Your task to perform on an android device: change the clock style Image 0: 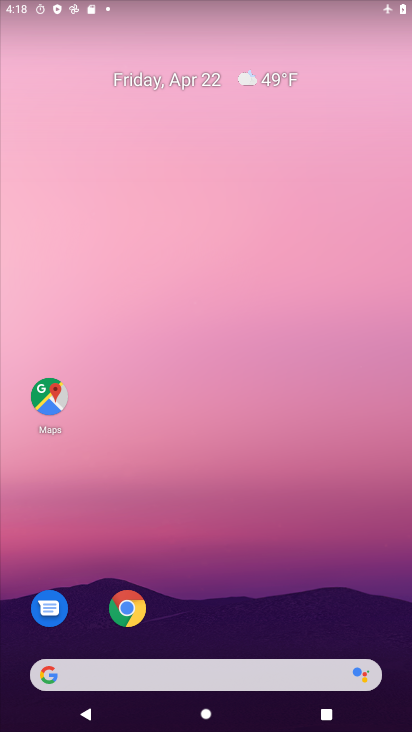
Step 0: drag from (289, 612) to (291, 21)
Your task to perform on an android device: change the clock style Image 1: 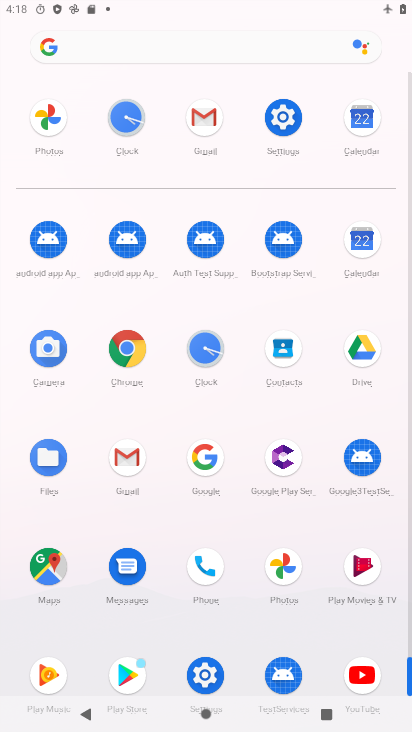
Step 1: click (122, 117)
Your task to perform on an android device: change the clock style Image 2: 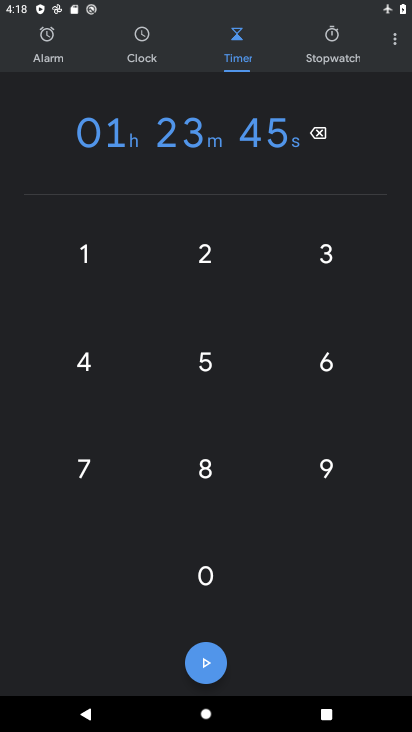
Step 2: click (391, 43)
Your task to perform on an android device: change the clock style Image 3: 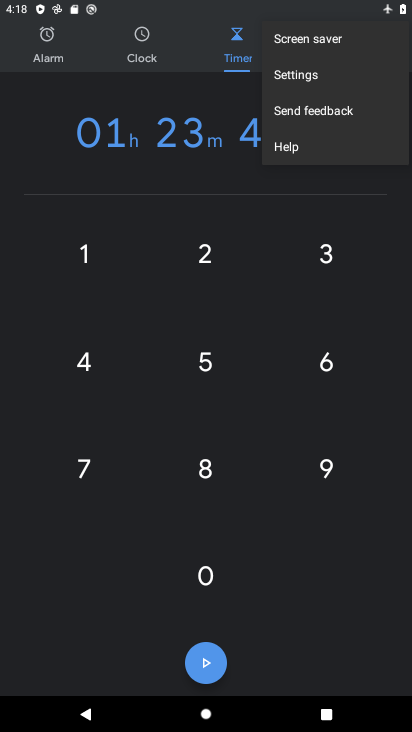
Step 3: click (312, 74)
Your task to perform on an android device: change the clock style Image 4: 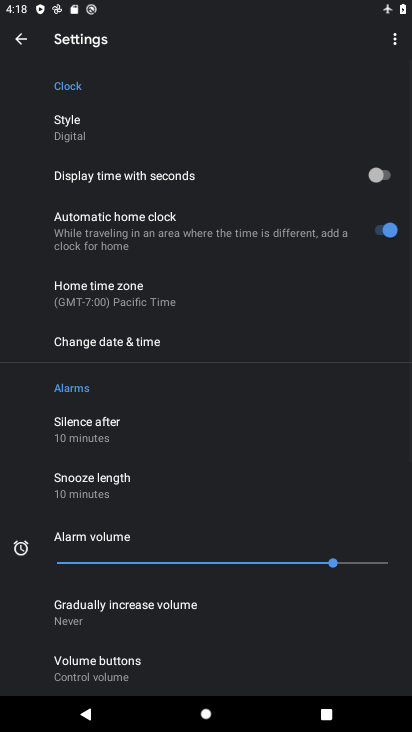
Step 4: click (78, 123)
Your task to perform on an android device: change the clock style Image 5: 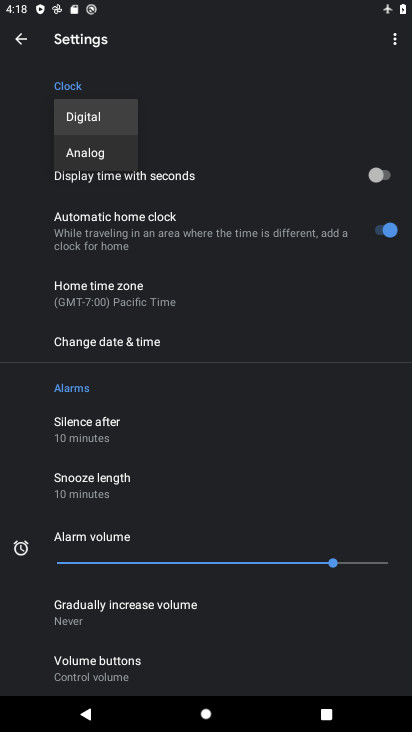
Step 5: click (98, 161)
Your task to perform on an android device: change the clock style Image 6: 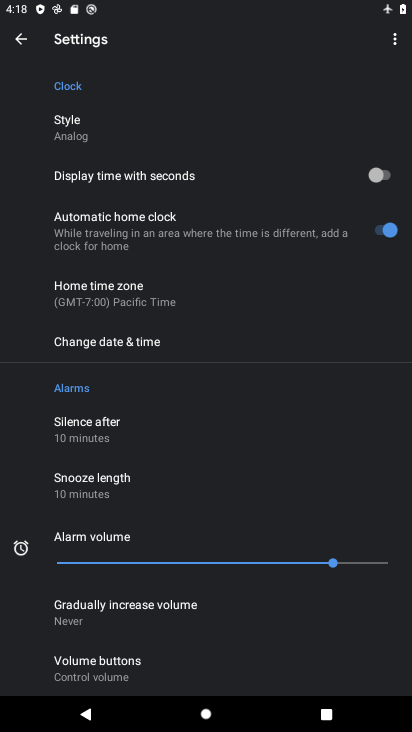
Step 6: task complete